Your task to perform on an android device: turn on improve location accuracy Image 0: 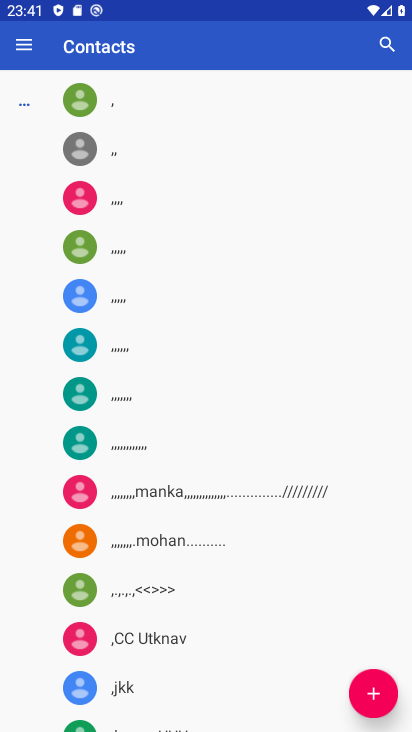
Step 0: press home button
Your task to perform on an android device: turn on improve location accuracy Image 1: 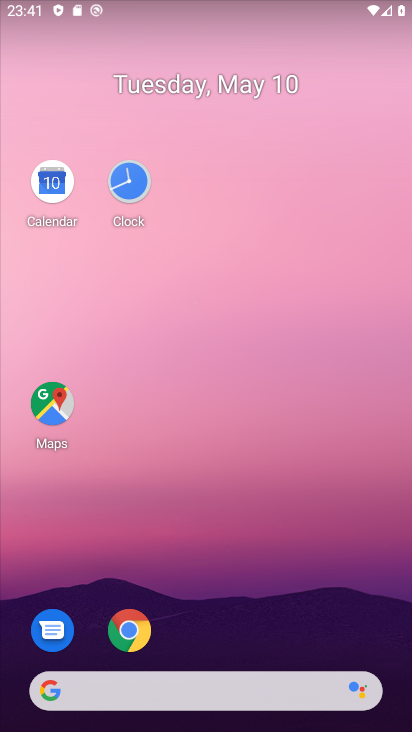
Step 1: drag from (263, 630) to (312, 65)
Your task to perform on an android device: turn on improve location accuracy Image 2: 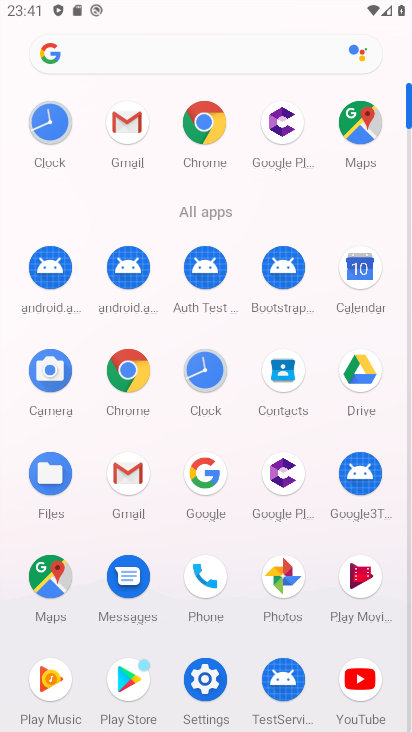
Step 2: drag from (202, 671) to (65, 281)
Your task to perform on an android device: turn on improve location accuracy Image 3: 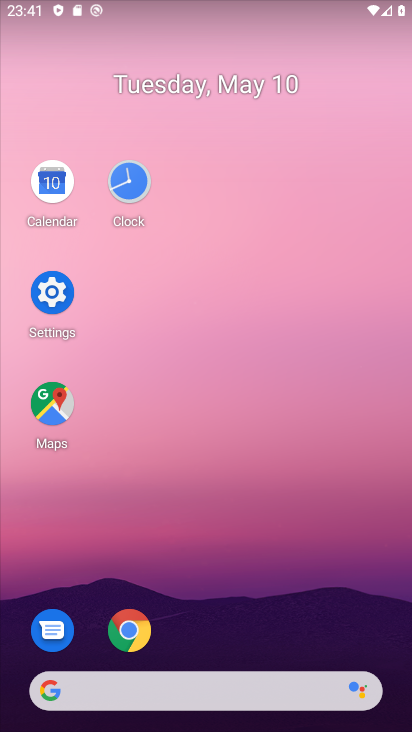
Step 3: click (72, 291)
Your task to perform on an android device: turn on improve location accuracy Image 4: 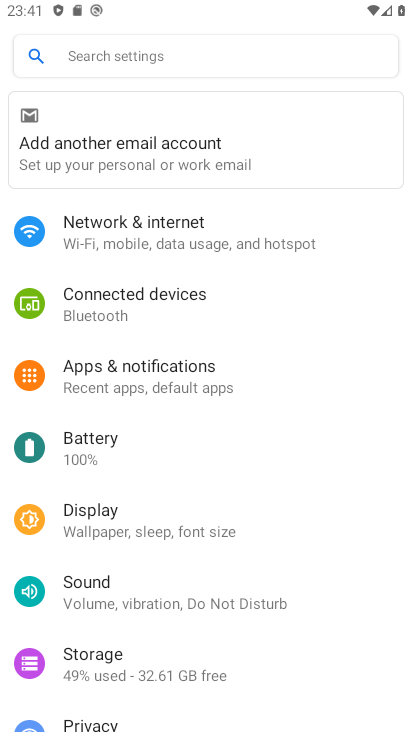
Step 4: drag from (245, 617) to (221, 225)
Your task to perform on an android device: turn on improve location accuracy Image 5: 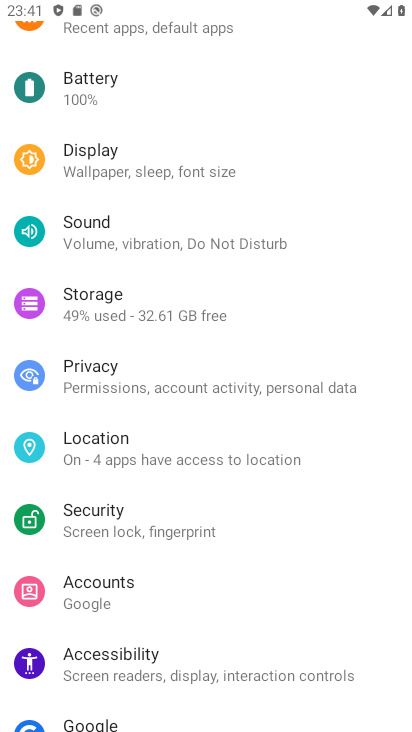
Step 5: click (168, 457)
Your task to perform on an android device: turn on improve location accuracy Image 6: 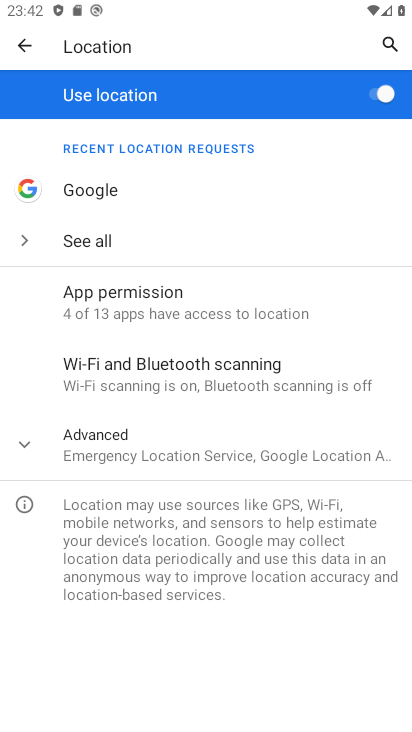
Step 6: click (158, 442)
Your task to perform on an android device: turn on improve location accuracy Image 7: 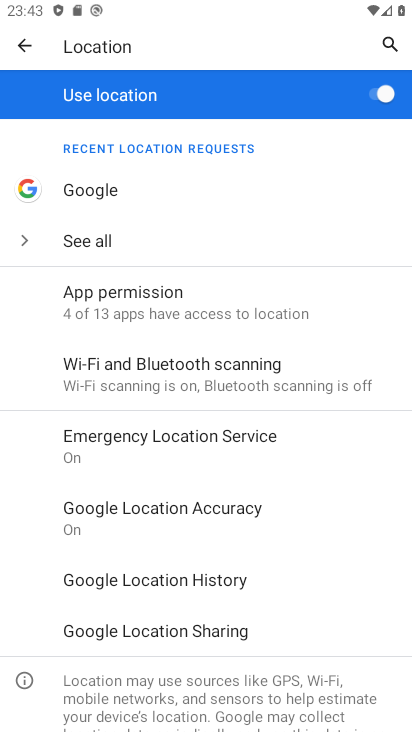
Step 7: click (223, 525)
Your task to perform on an android device: turn on improve location accuracy Image 8: 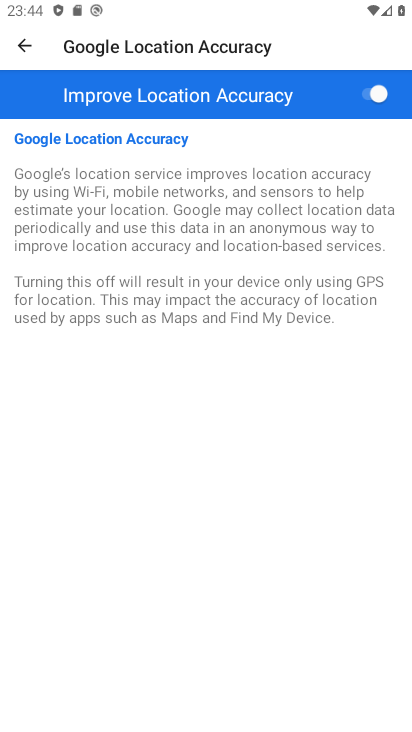
Step 8: task complete